Your task to perform on an android device: turn off picture-in-picture Image 0: 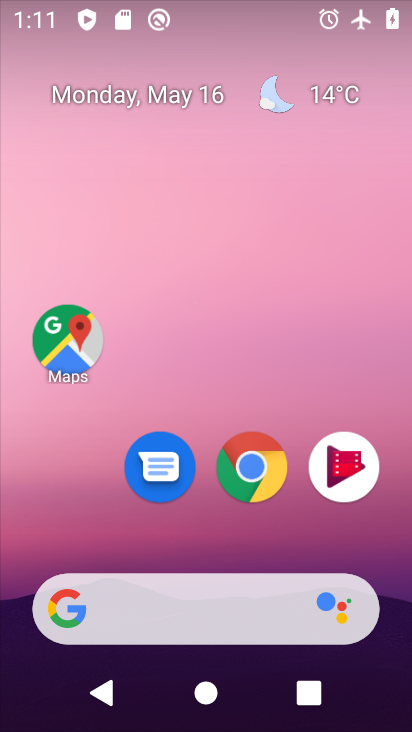
Step 0: drag from (271, 466) to (354, 161)
Your task to perform on an android device: turn off picture-in-picture Image 1: 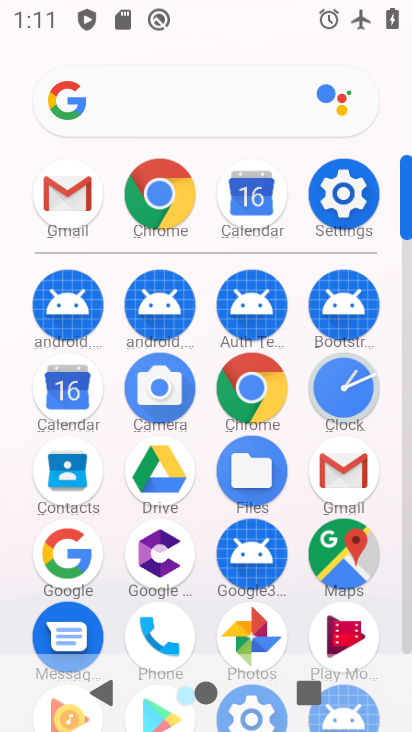
Step 1: click (338, 180)
Your task to perform on an android device: turn off picture-in-picture Image 2: 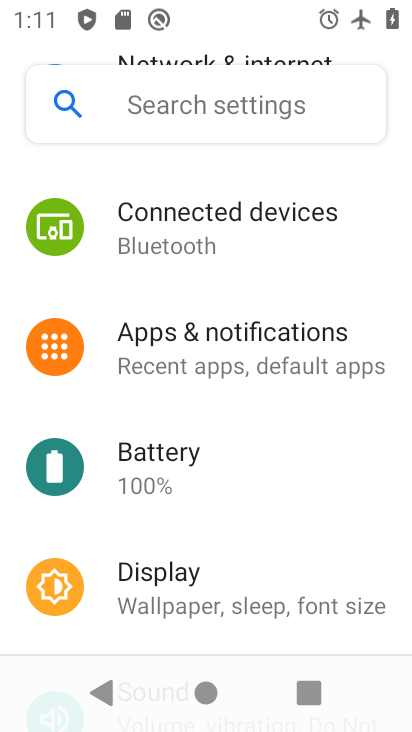
Step 2: drag from (214, 197) to (175, 582)
Your task to perform on an android device: turn off picture-in-picture Image 3: 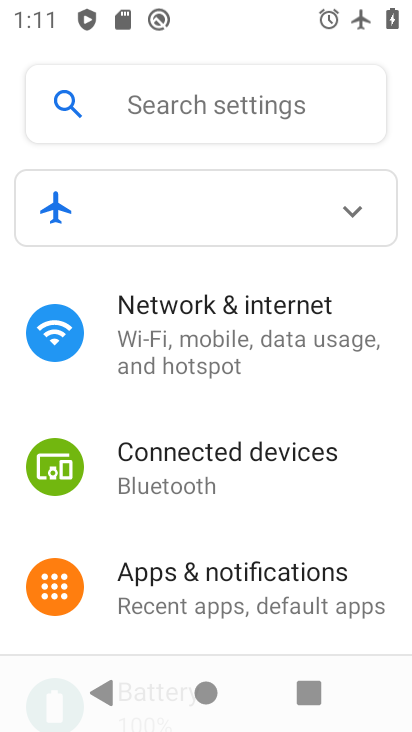
Step 3: click (221, 593)
Your task to perform on an android device: turn off picture-in-picture Image 4: 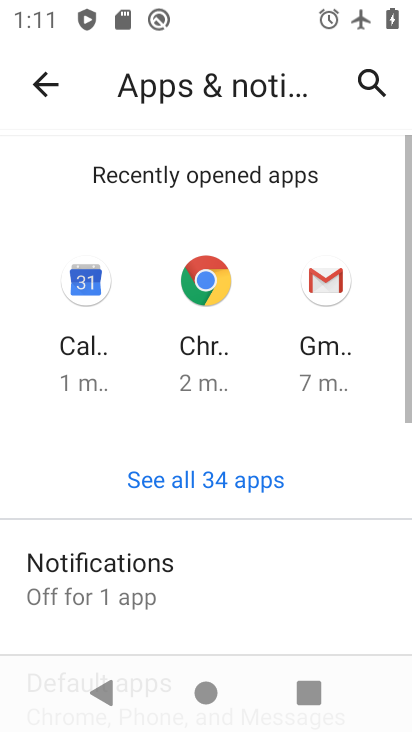
Step 4: drag from (159, 580) to (235, 126)
Your task to perform on an android device: turn off picture-in-picture Image 5: 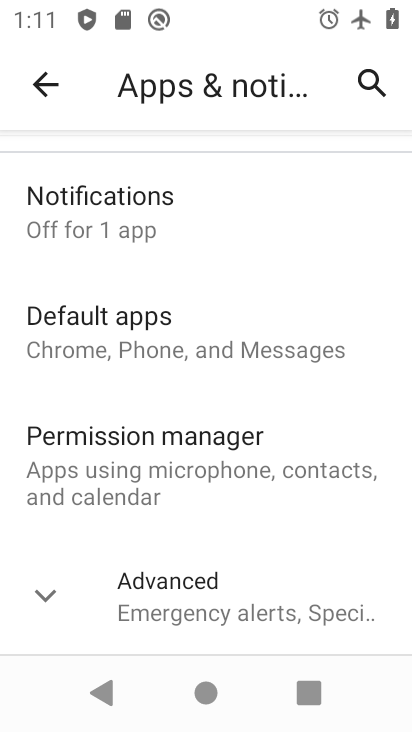
Step 5: click (163, 586)
Your task to perform on an android device: turn off picture-in-picture Image 6: 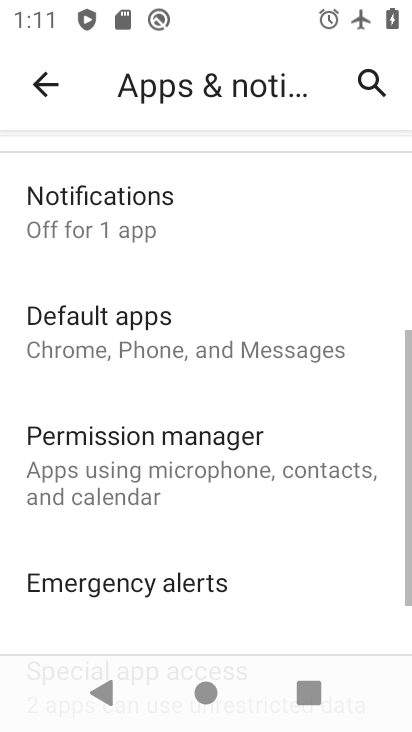
Step 6: drag from (227, 579) to (291, 166)
Your task to perform on an android device: turn off picture-in-picture Image 7: 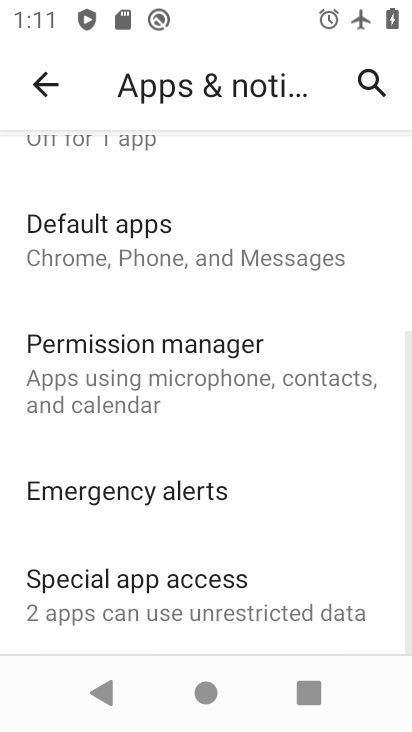
Step 7: click (126, 576)
Your task to perform on an android device: turn off picture-in-picture Image 8: 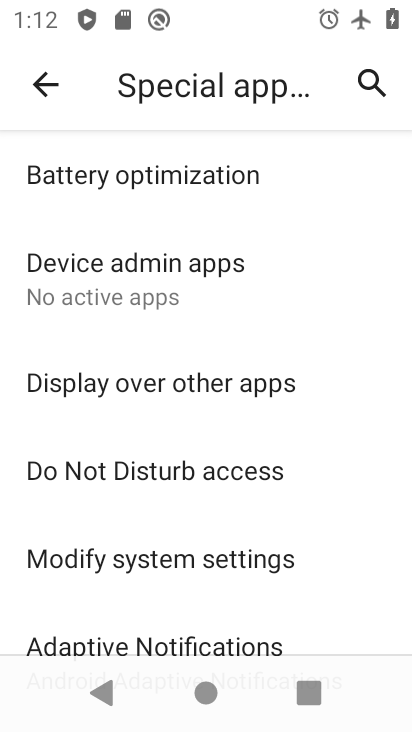
Step 8: drag from (148, 536) to (233, 169)
Your task to perform on an android device: turn off picture-in-picture Image 9: 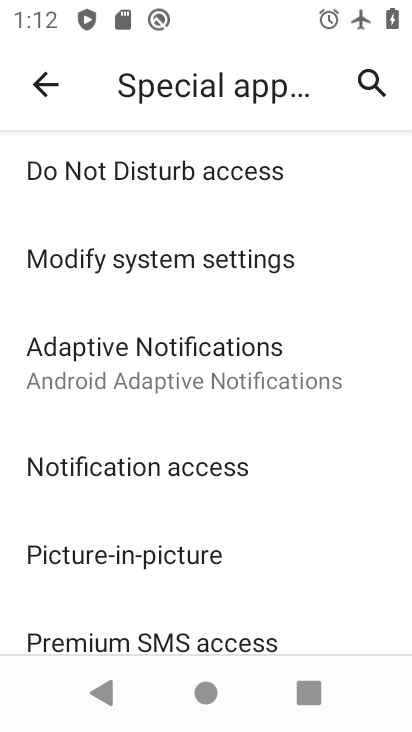
Step 9: click (105, 557)
Your task to perform on an android device: turn off picture-in-picture Image 10: 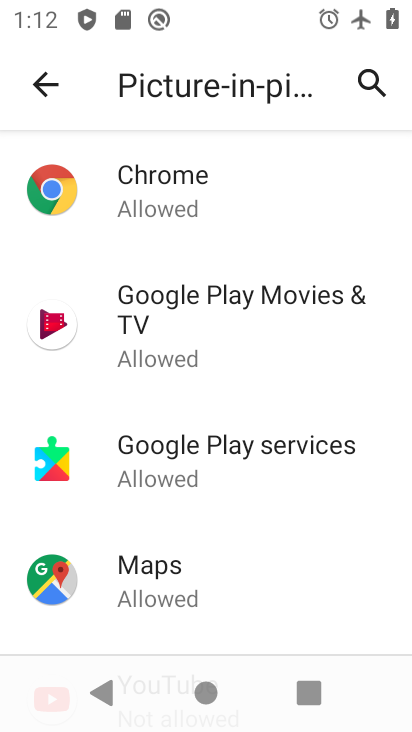
Step 10: drag from (265, 569) to (318, 204)
Your task to perform on an android device: turn off picture-in-picture Image 11: 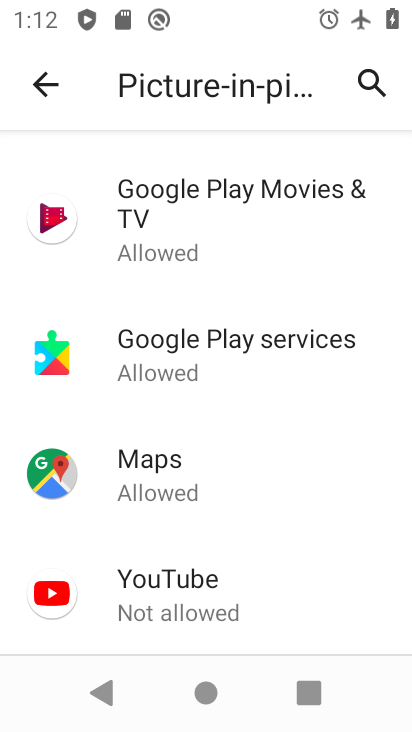
Step 11: click (181, 596)
Your task to perform on an android device: turn off picture-in-picture Image 12: 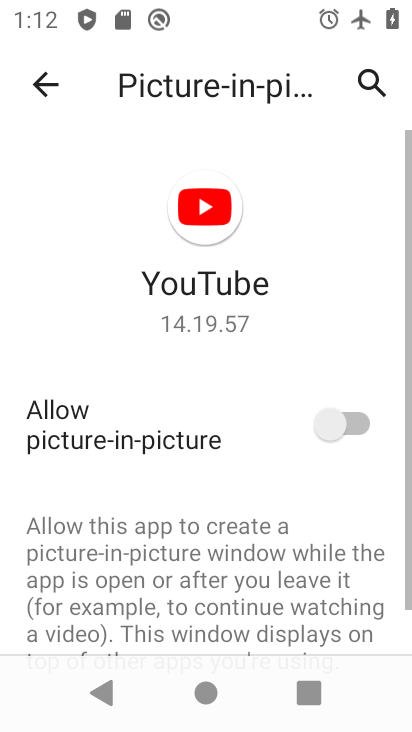
Step 12: click (338, 421)
Your task to perform on an android device: turn off picture-in-picture Image 13: 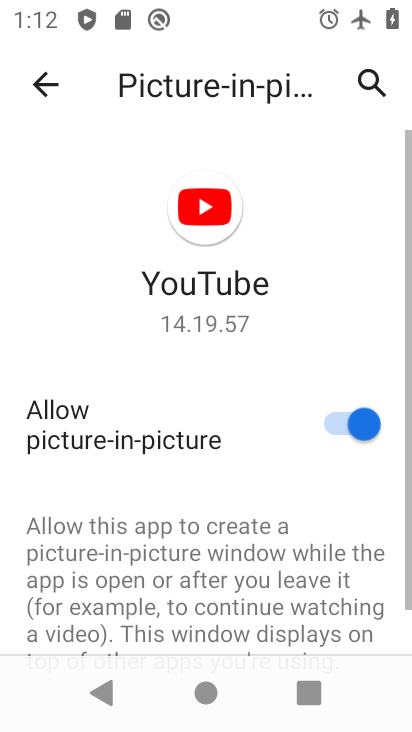
Step 13: click (334, 421)
Your task to perform on an android device: turn off picture-in-picture Image 14: 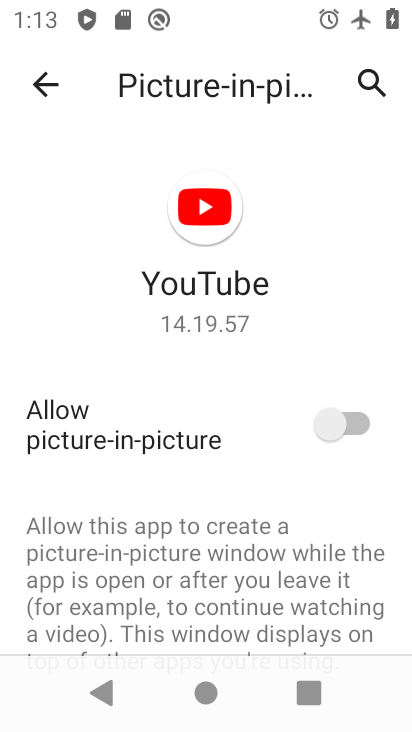
Step 14: task complete